Your task to perform on an android device: turn on data saver in the chrome app Image 0: 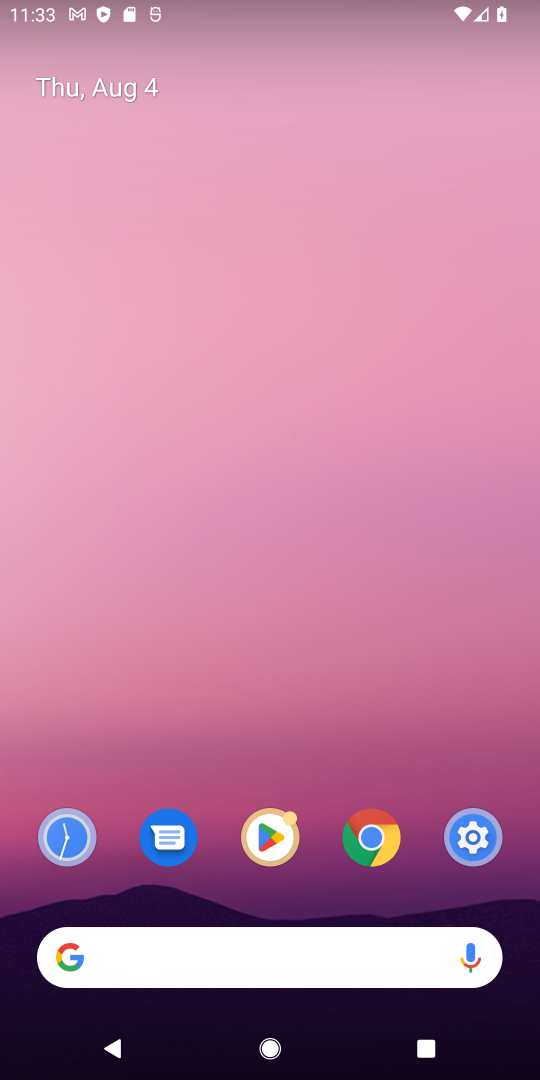
Step 0: click (378, 832)
Your task to perform on an android device: turn on data saver in the chrome app Image 1: 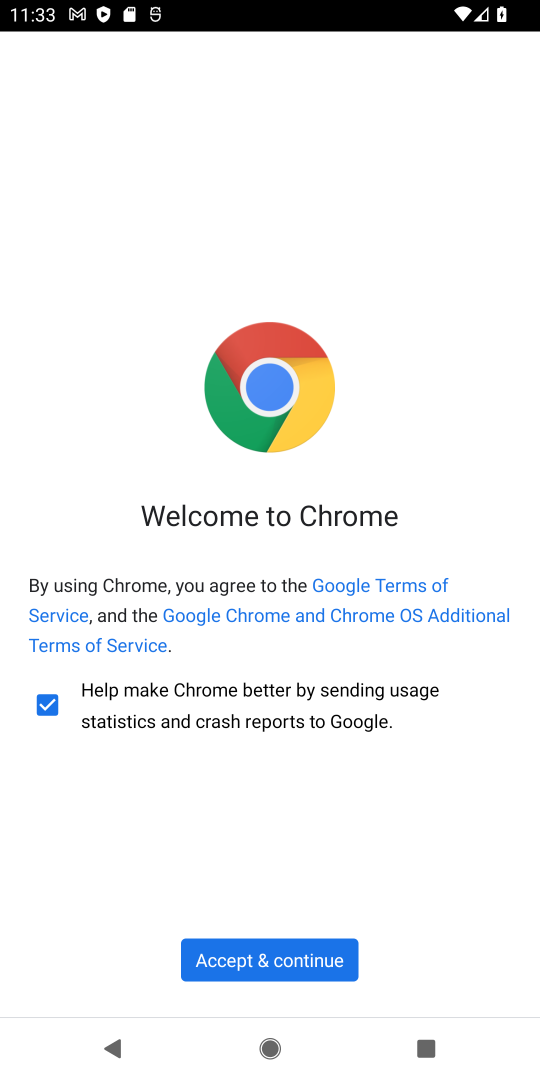
Step 1: click (302, 951)
Your task to perform on an android device: turn on data saver in the chrome app Image 2: 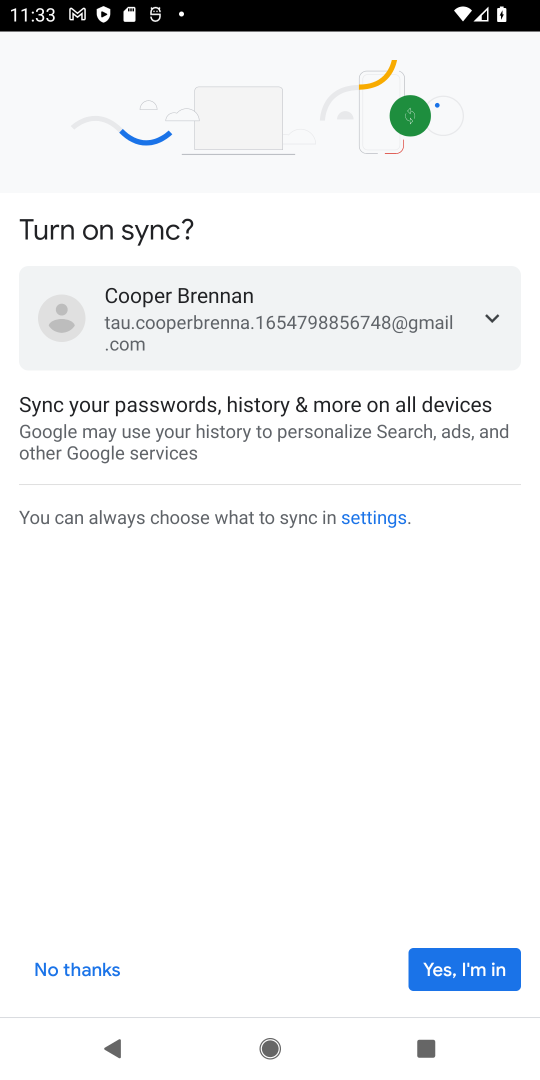
Step 2: click (490, 975)
Your task to perform on an android device: turn on data saver in the chrome app Image 3: 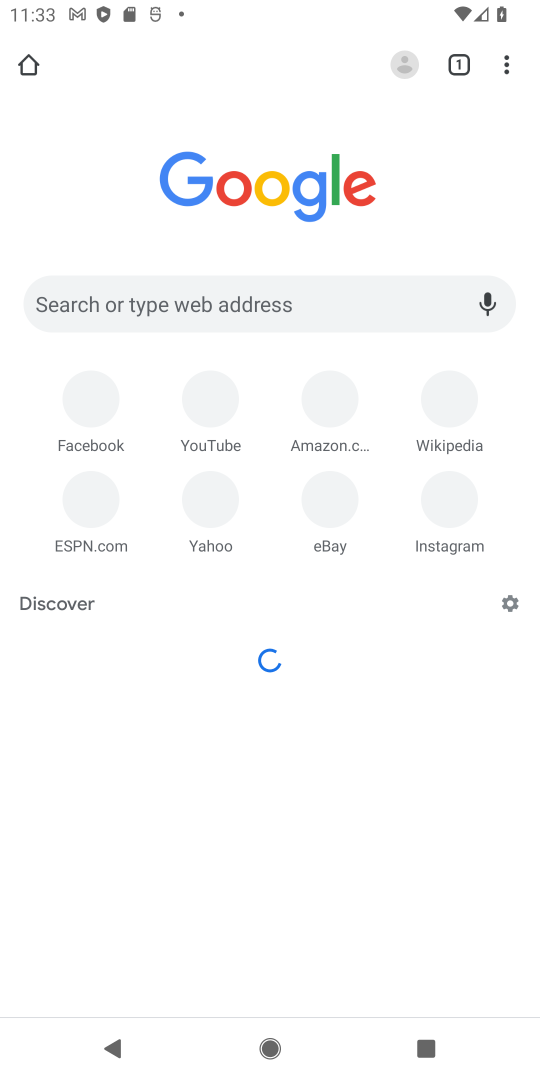
Step 3: click (503, 52)
Your task to perform on an android device: turn on data saver in the chrome app Image 4: 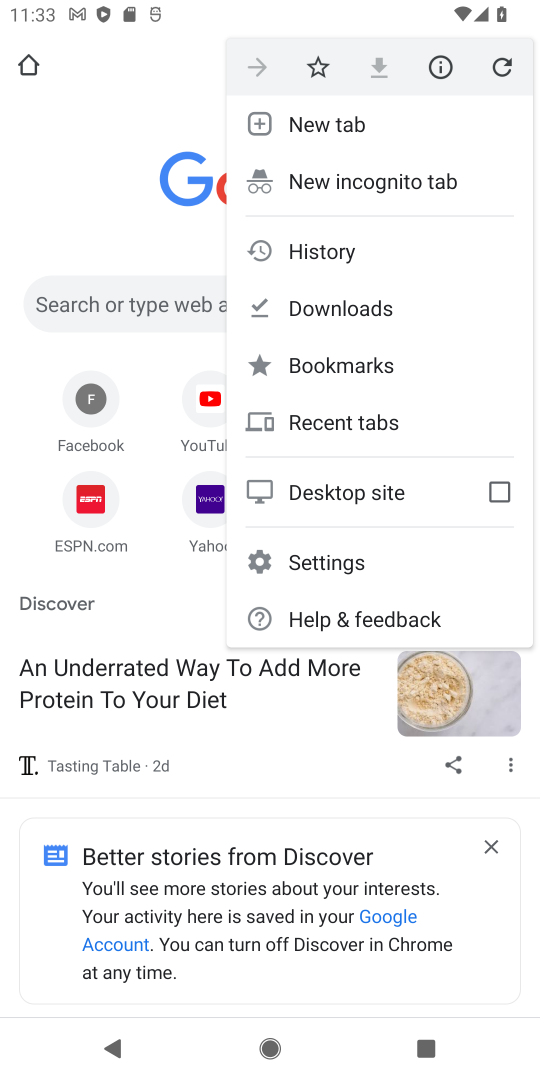
Step 4: click (278, 569)
Your task to perform on an android device: turn on data saver in the chrome app Image 5: 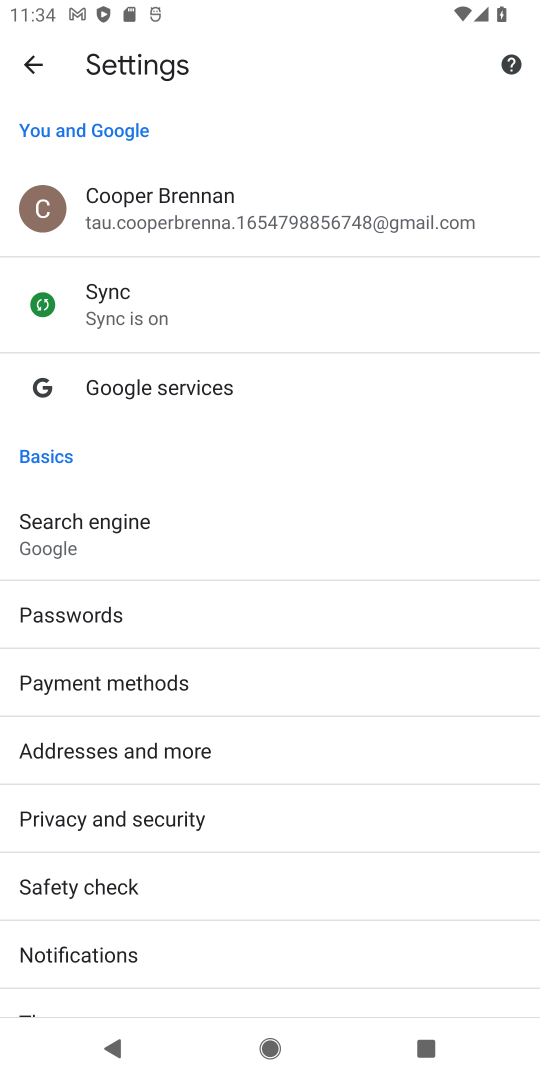
Step 5: drag from (173, 816) to (154, 516)
Your task to perform on an android device: turn on data saver in the chrome app Image 6: 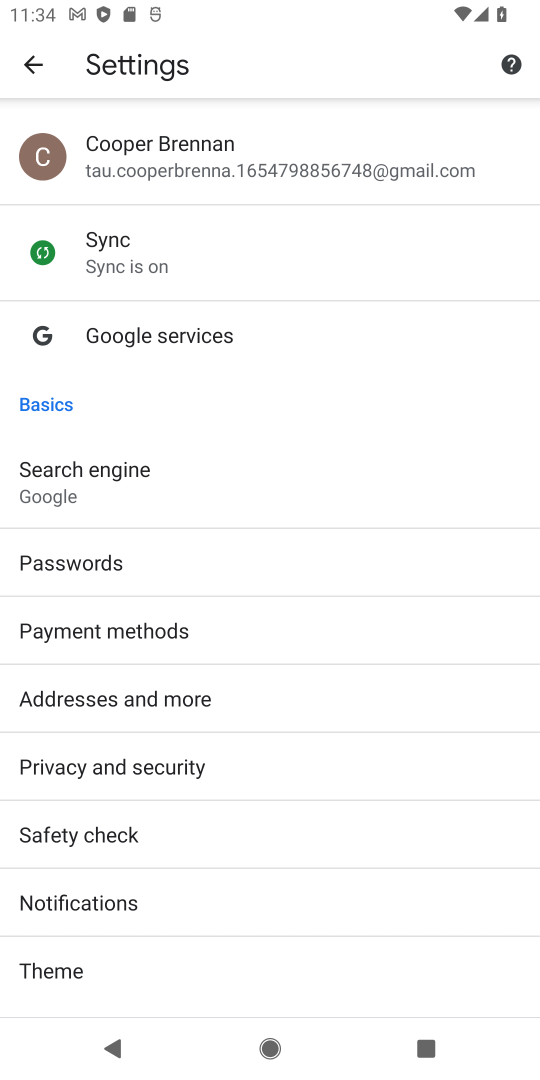
Step 6: drag from (123, 950) to (198, 350)
Your task to perform on an android device: turn on data saver in the chrome app Image 7: 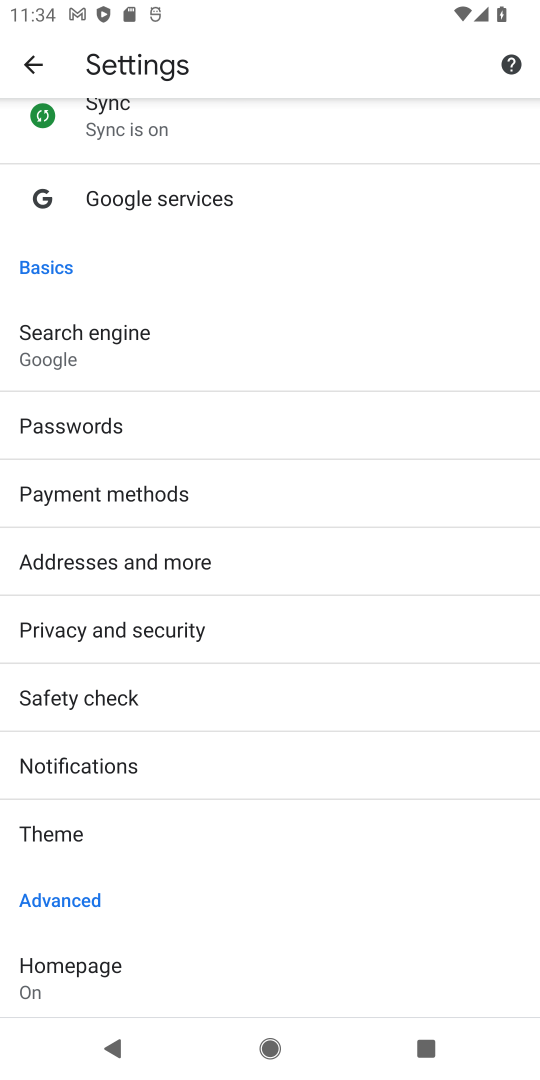
Step 7: drag from (277, 833) to (277, 559)
Your task to perform on an android device: turn on data saver in the chrome app Image 8: 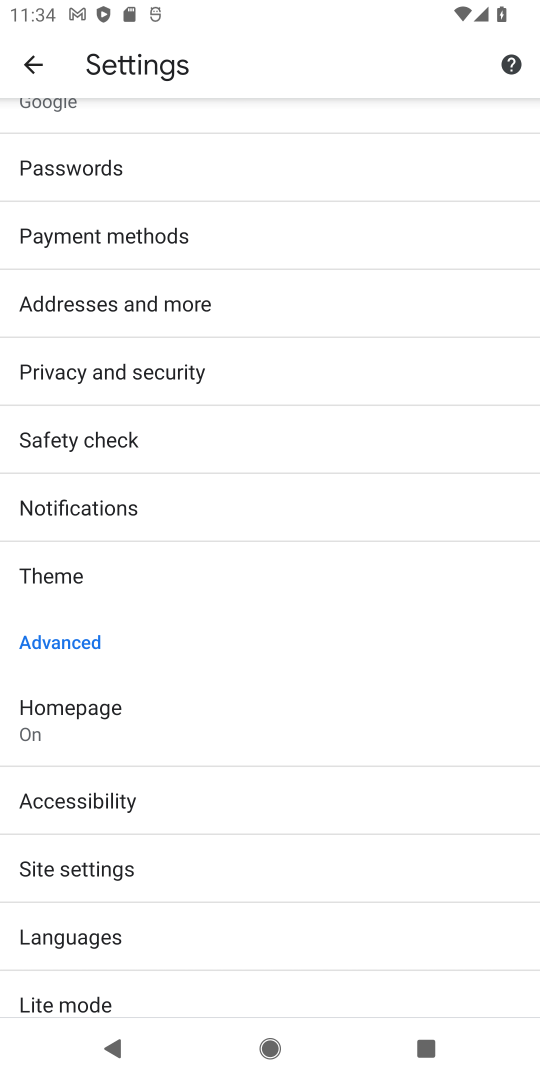
Step 8: click (211, 988)
Your task to perform on an android device: turn on data saver in the chrome app Image 9: 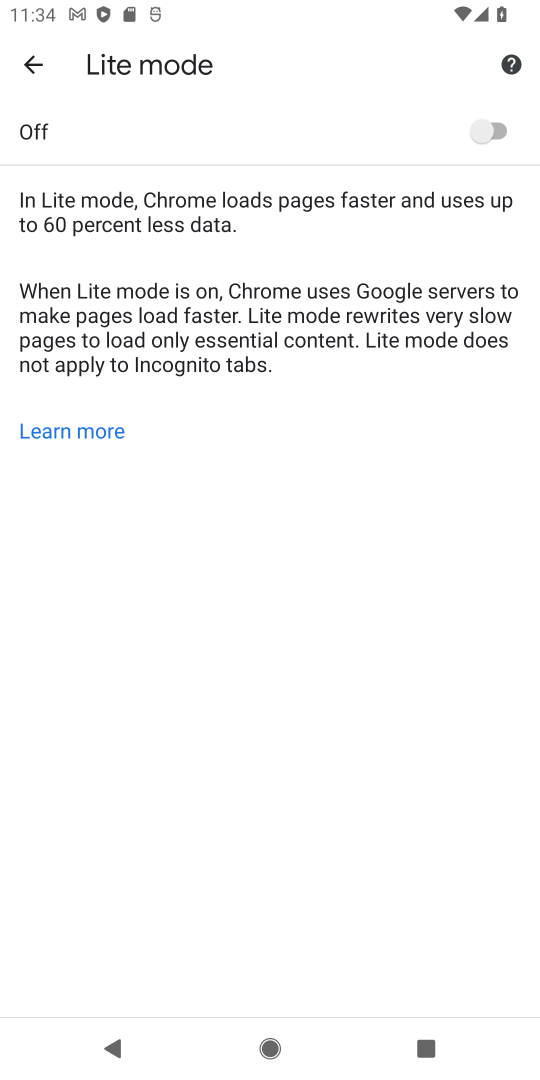
Step 9: click (483, 137)
Your task to perform on an android device: turn on data saver in the chrome app Image 10: 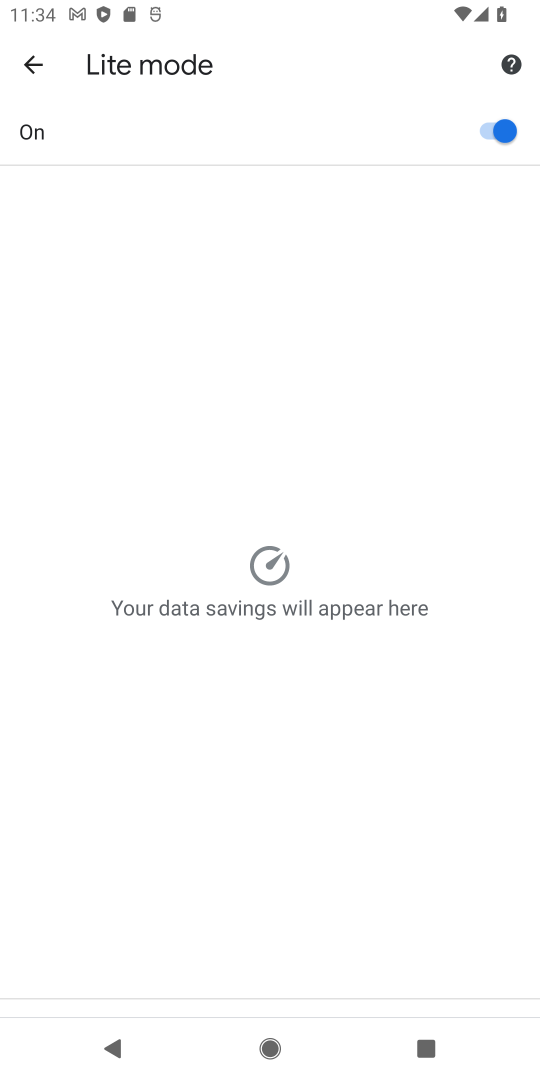
Step 10: task complete